Your task to perform on an android device: turn pop-ups off in chrome Image 0: 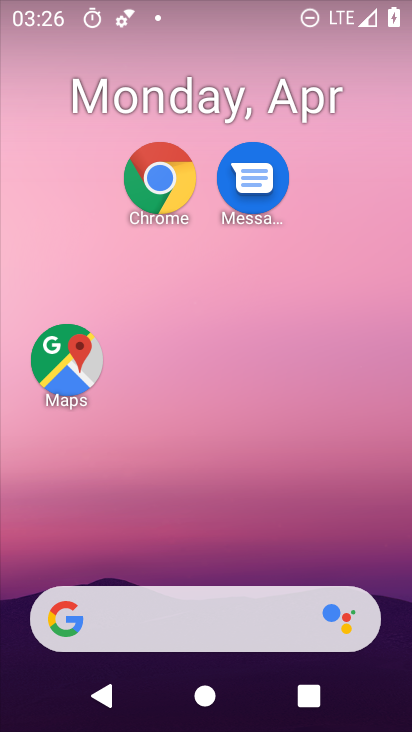
Step 0: drag from (228, 577) to (215, 61)
Your task to perform on an android device: turn pop-ups off in chrome Image 1: 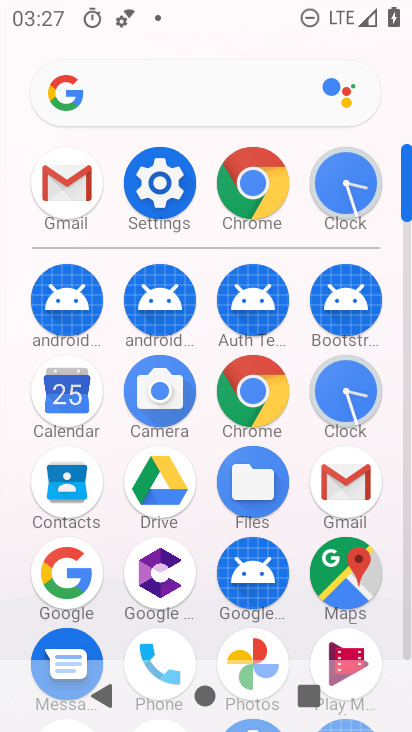
Step 1: click (255, 406)
Your task to perform on an android device: turn pop-ups off in chrome Image 2: 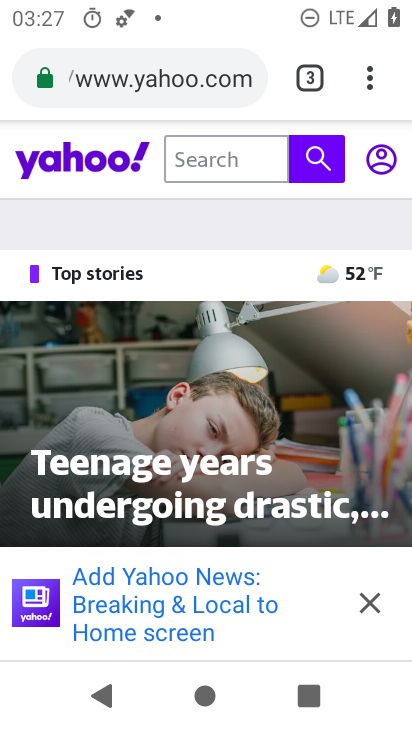
Step 2: click (371, 75)
Your task to perform on an android device: turn pop-ups off in chrome Image 3: 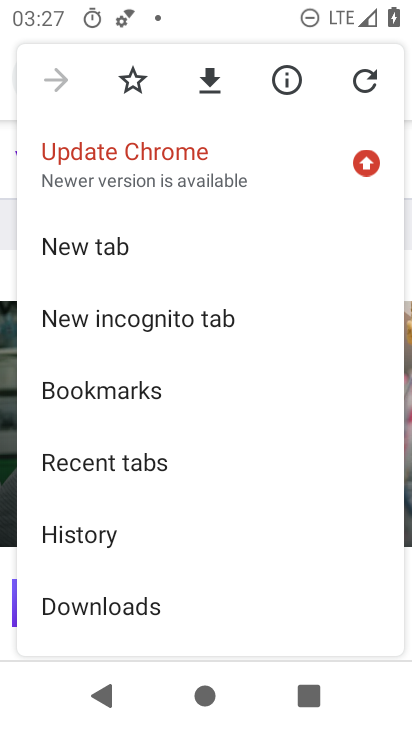
Step 3: drag from (182, 586) to (202, 59)
Your task to perform on an android device: turn pop-ups off in chrome Image 4: 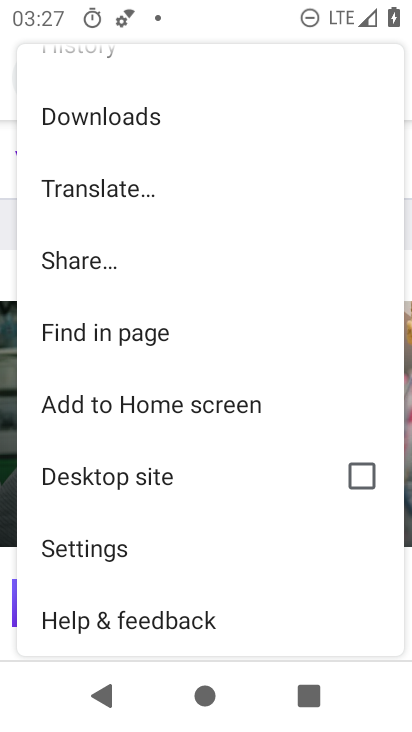
Step 4: click (132, 553)
Your task to perform on an android device: turn pop-ups off in chrome Image 5: 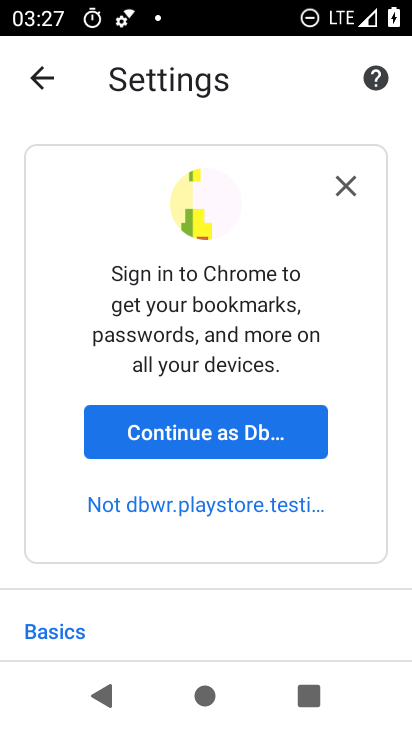
Step 5: drag from (146, 624) to (139, 113)
Your task to perform on an android device: turn pop-ups off in chrome Image 6: 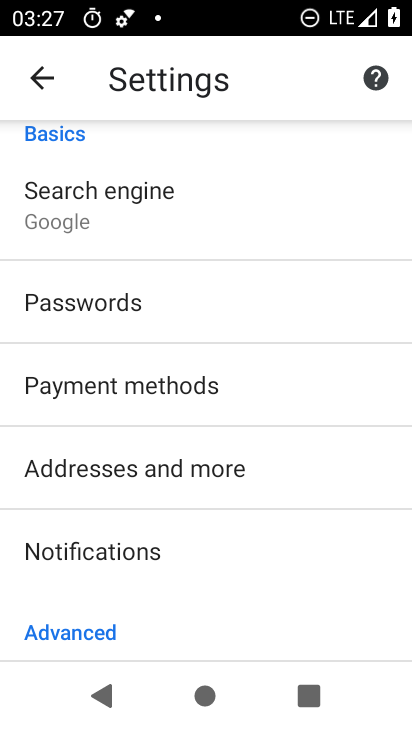
Step 6: drag from (139, 547) to (174, 204)
Your task to perform on an android device: turn pop-ups off in chrome Image 7: 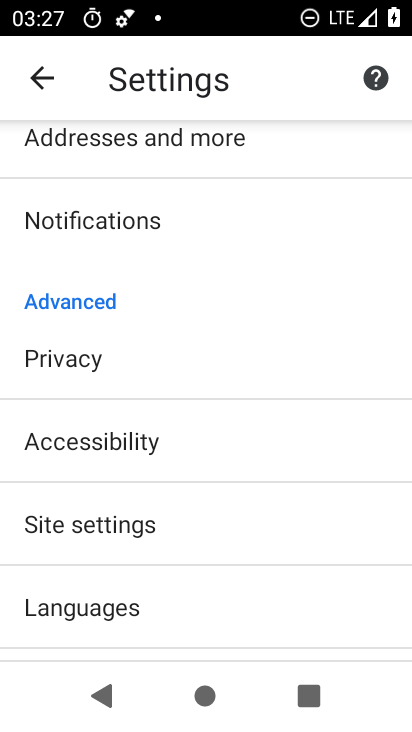
Step 7: drag from (158, 602) to (181, 183)
Your task to perform on an android device: turn pop-ups off in chrome Image 8: 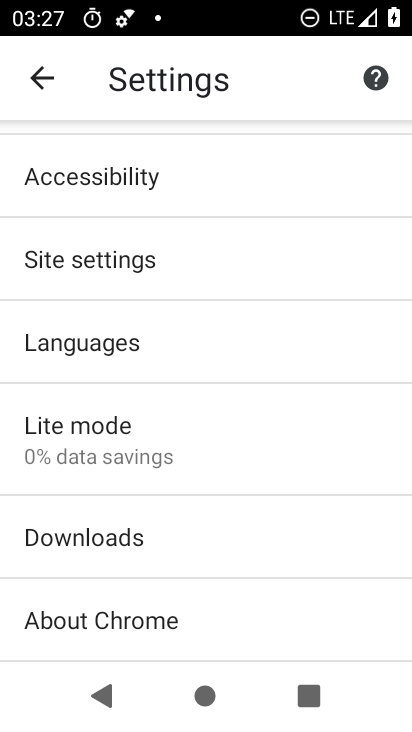
Step 8: click (143, 267)
Your task to perform on an android device: turn pop-ups off in chrome Image 9: 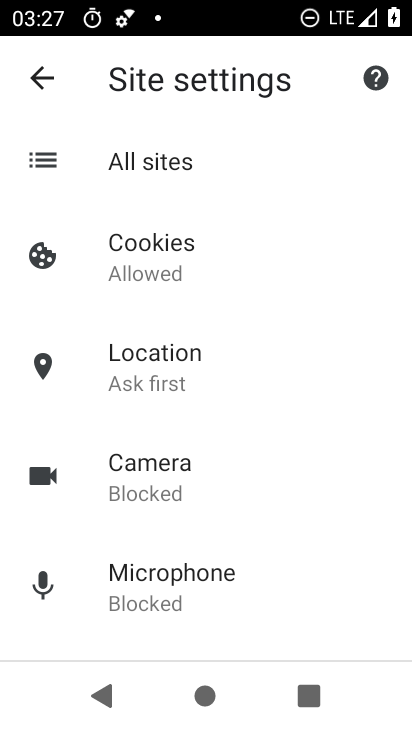
Step 9: drag from (225, 623) to (243, 169)
Your task to perform on an android device: turn pop-ups off in chrome Image 10: 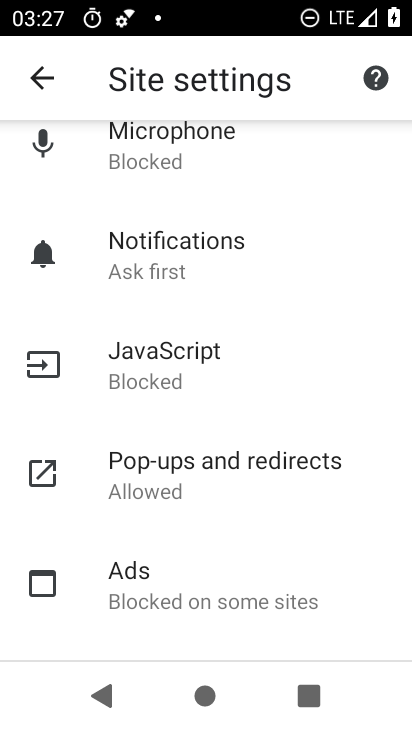
Step 10: click (160, 465)
Your task to perform on an android device: turn pop-ups off in chrome Image 11: 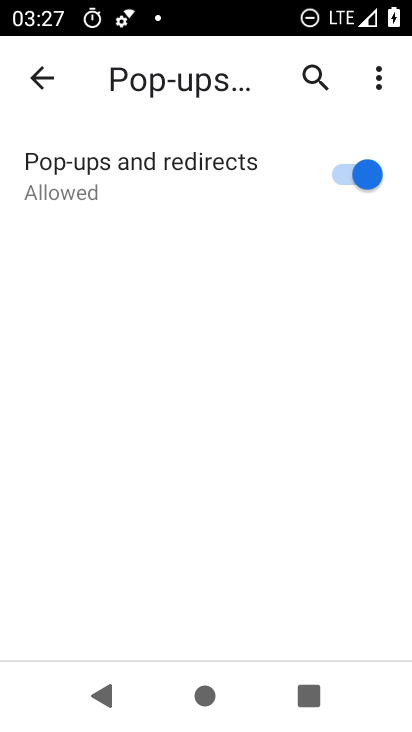
Step 11: click (346, 167)
Your task to perform on an android device: turn pop-ups off in chrome Image 12: 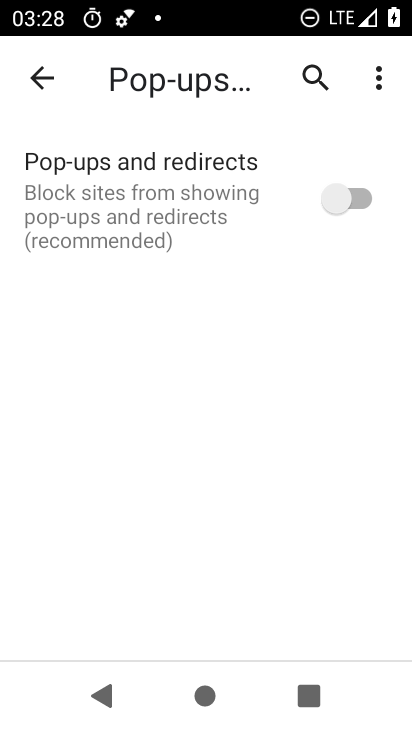
Step 12: task complete